Your task to perform on an android device: open app "Mercado Libre" (install if not already installed) Image 0: 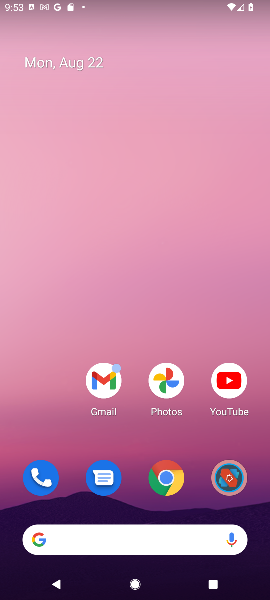
Step 0: drag from (202, 509) to (159, 8)
Your task to perform on an android device: open app "Mercado Libre" (install if not already installed) Image 1: 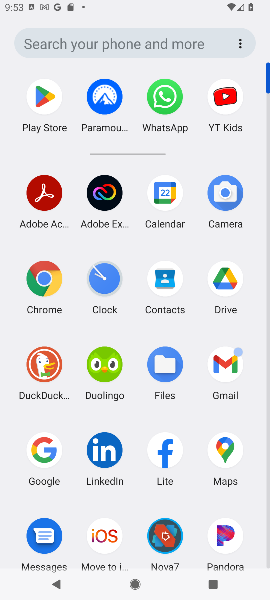
Step 1: click (49, 97)
Your task to perform on an android device: open app "Mercado Libre" (install if not already installed) Image 2: 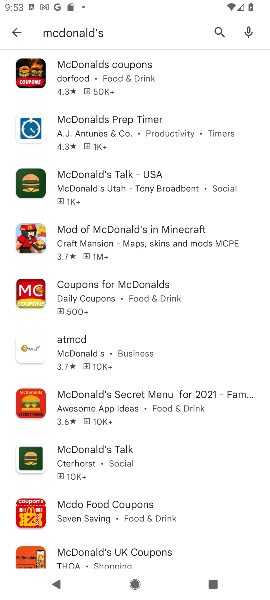
Step 2: click (209, 37)
Your task to perform on an android device: open app "Mercado Libre" (install if not already installed) Image 3: 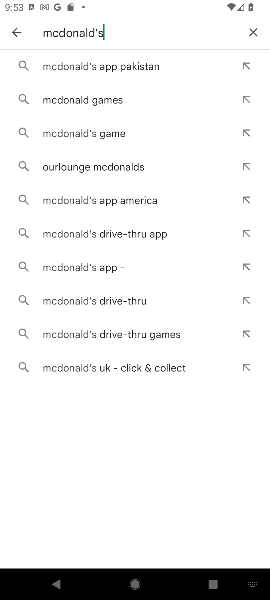
Step 3: click (253, 38)
Your task to perform on an android device: open app "Mercado Libre" (install if not already installed) Image 4: 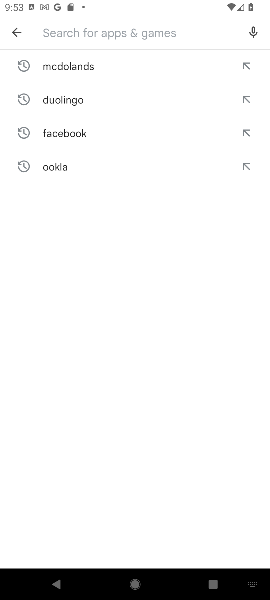
Step 4: type "mecado liber"
Your task to perform on an android device: open app "Mercado Libre" (install if not already installed) Image 5: 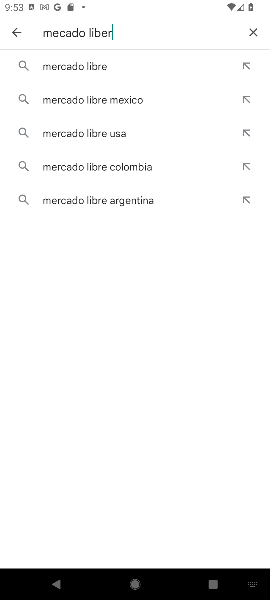
Step 5: click (66, 79)
Your task to perform on an android device: open app "Mercado Libre" (install if not already installed) Image 6: 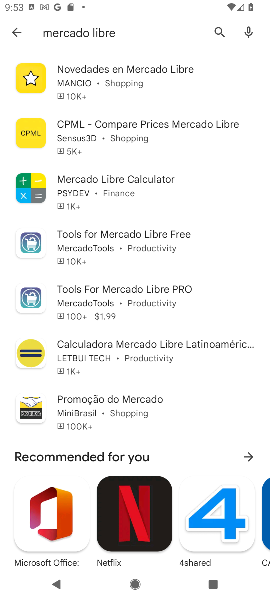
Step 6: task complete